Your task to perform on an android device: Go to Yahoo.com Image 0: 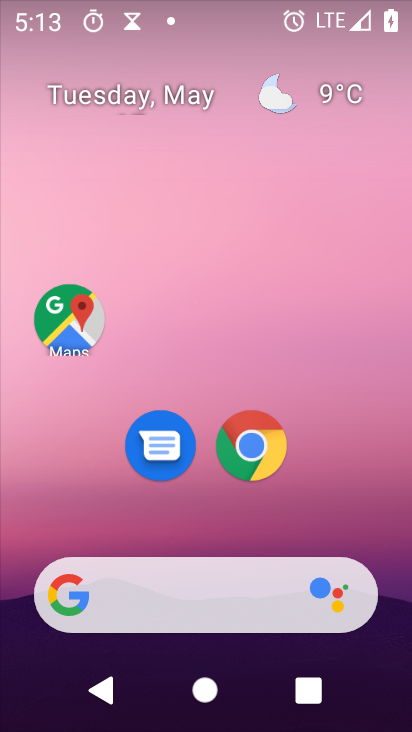
Step 0: drag from (338, 596) to (267, 159)
Your task to perform on an android device: Go to Yahoo.com Image 1: 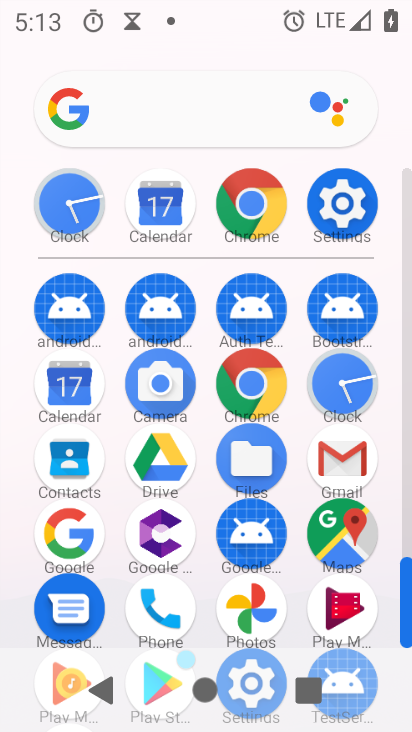
Step 1: click (247, 378)
Your task to perform on an android device: Go to Yahoo.com Image 2: 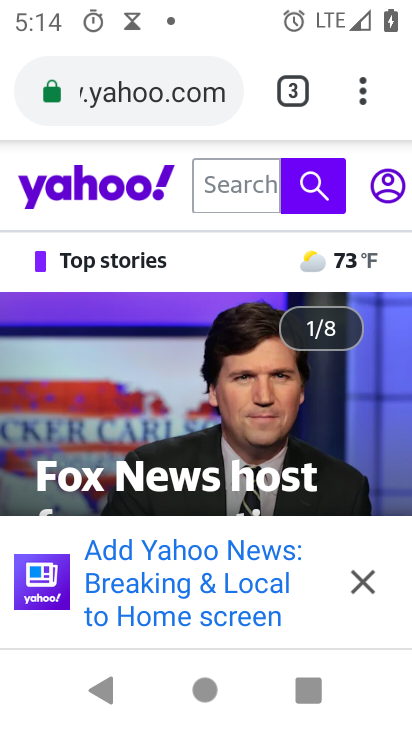
Step 2: task complete